Your task to perform on an android device: Open Chrome and go to settings Image 0: 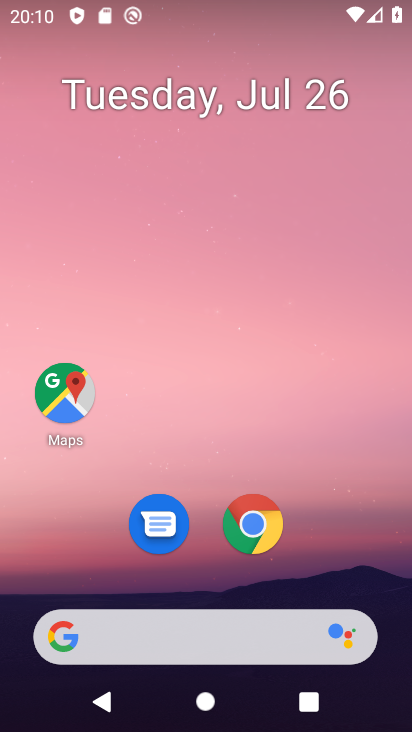
Step 0: click (254, 528)
Your task to perform on an android device: Open Chrome and go to settings Image 1: 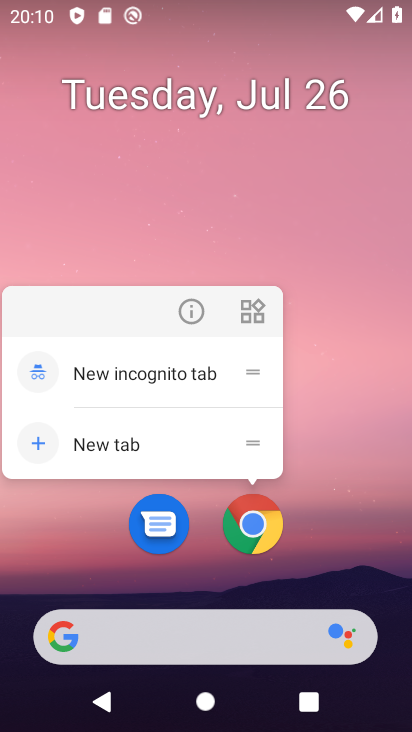
Step 1: click (254, 531)
Your task to perform on an android device: Open Chrome and go to settings Image 2: 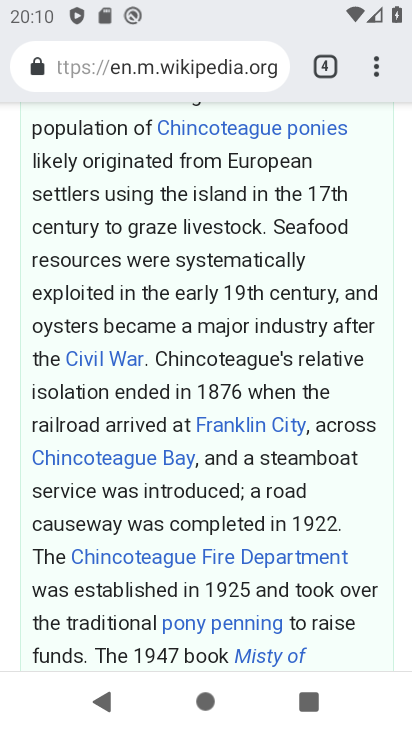
Step 2: task complete